Your task to perform on an android device: delete the emails in spam in the gmail app Image 0: 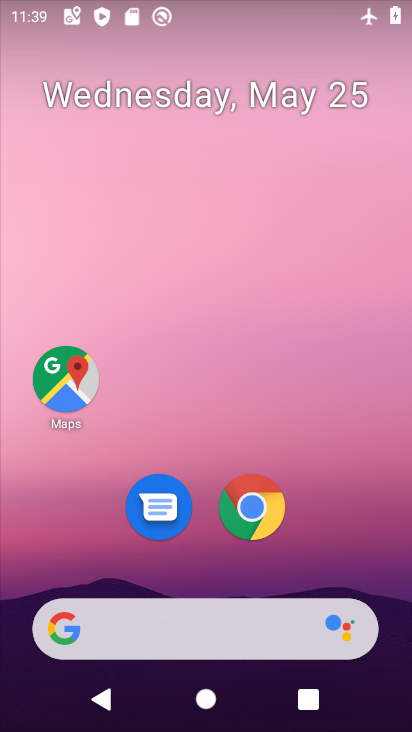
Step 0: drag from (303, 479) to (247, 113)
Your task to perform on an android device: delete the emails in spam in the gmail app Image 1: 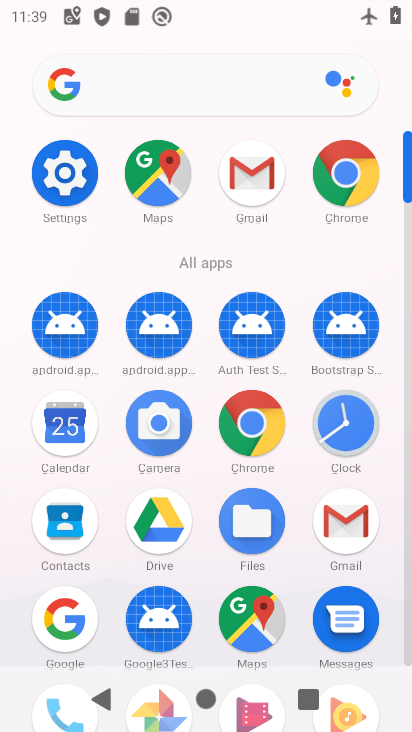
Step 1: click (247, 175)
Your task to perform on an android device: delete the emails in spam in the gmail app Image 2: 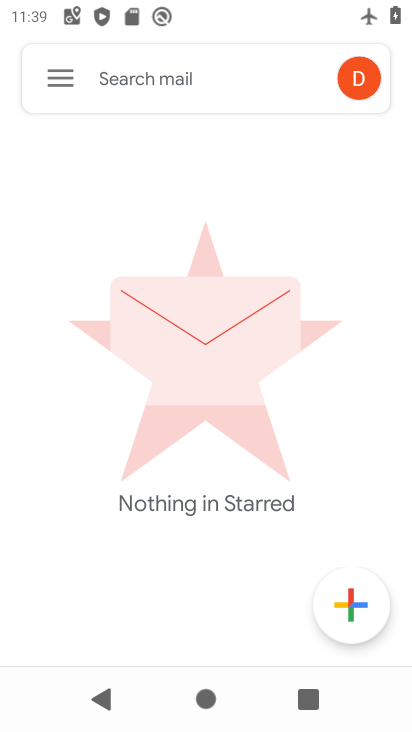
Step 2: click (65, 76)
Your task to perform on an android device: delete the emails in spam in the gmail app Image 3: 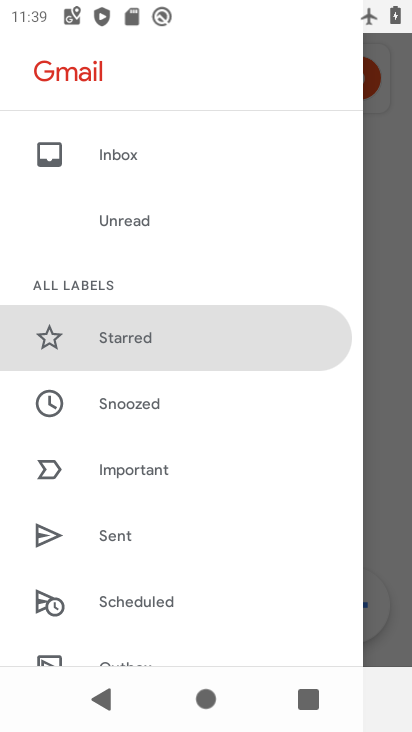
Step 3: drag from (122, 427) to (175, 317)
Your task to perform on an android device: delete the emails in spam in the gmail app Image 4: 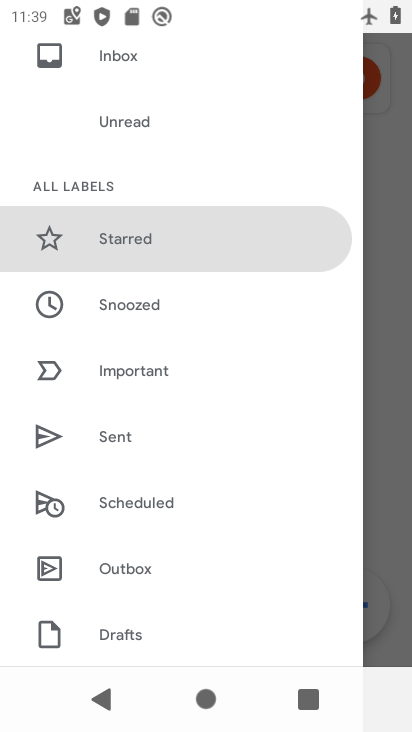
Step 4: drag from (126, 344) to (211, 249)
Your task to perform on an android device: delete the emails in spam in the gmail app Image 5: 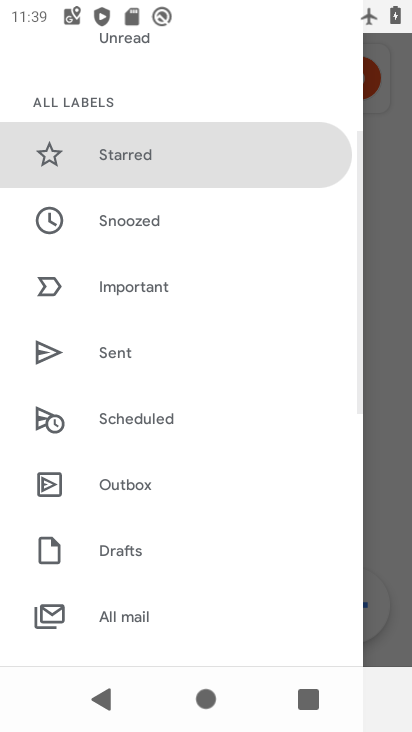
Step 5: drag from (114, 390) to (208, 289)
Your task to perform on an android device: delete the emails in spam in the gmail app Image 6: 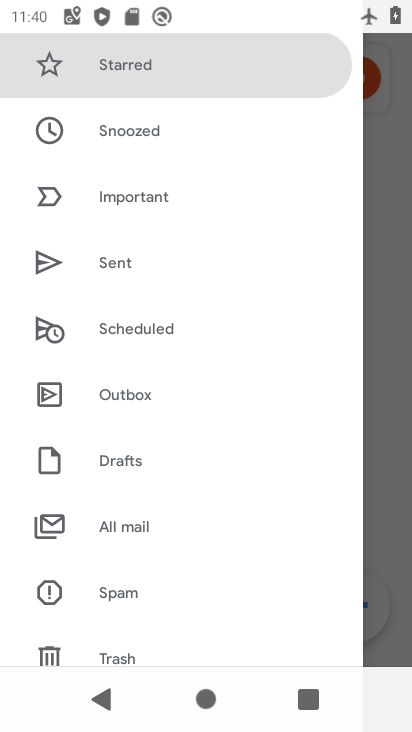
Step 6: click (188, 342)
Your task to perform on an android device: delete the emails in spam in the gmail app Image 7: 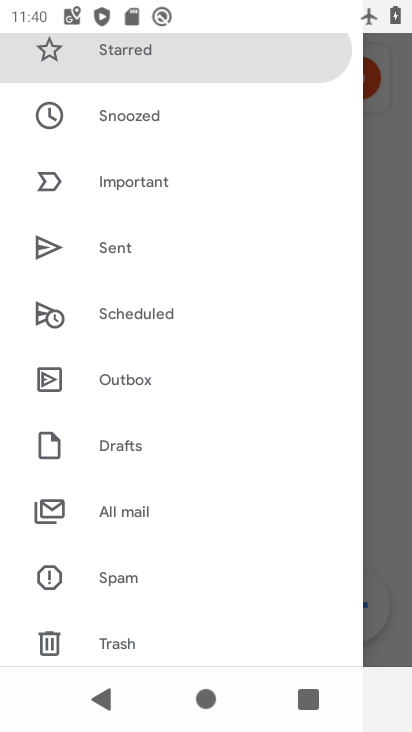
Step 7: drag from (115, 423) to (192, 324)
Your task to perform on an android device: delete the emails in spam in the gmail app Image 8: 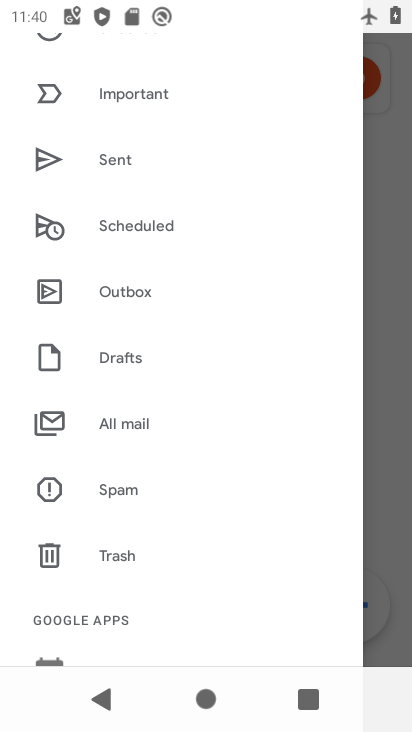
Step 8: drag from (113, 398) to (161, 279)
Your task to perform on an android device: delete the emails in spam in the gmail app Image 9: 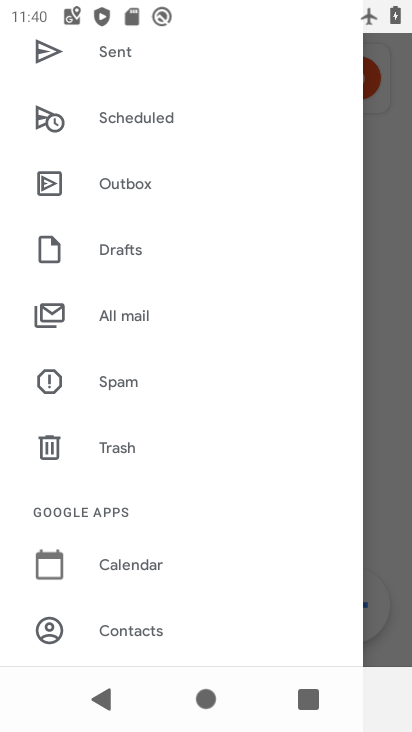
Step 9: drag from (106, 417) to (156, 319)
Your task to perform on an android device: delete the emails in spam in the gmail app Image 10: 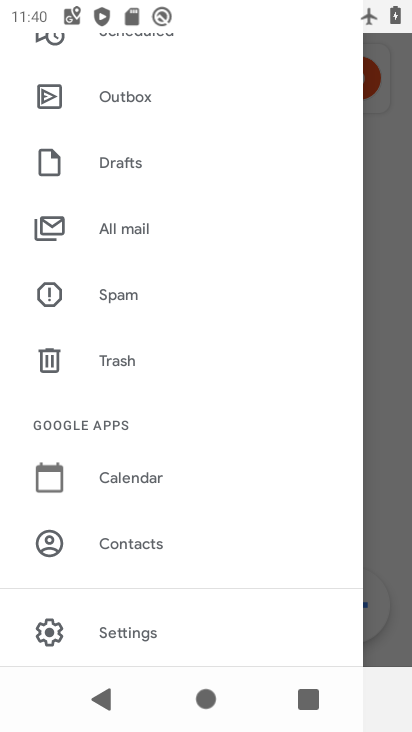
Step 10: drag from (104, 451) to (189, 345)
Your task to perform on an android device: delete the emails in spam in the gmail app Image 11: 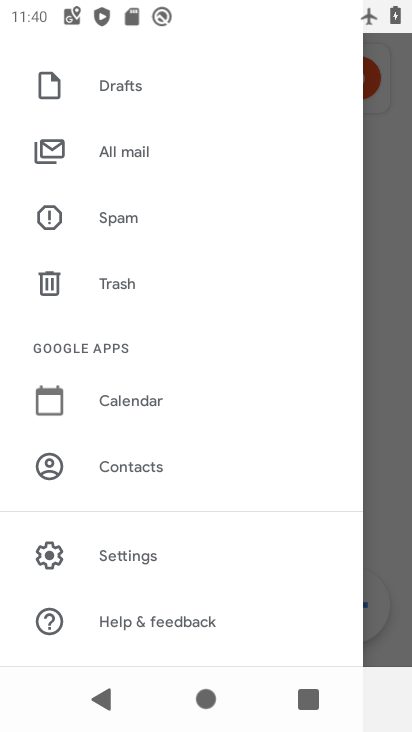
Step 11: click (135, 225)
Your task to perform on an android device: delete the emails in spam in the gmail app Image 12: 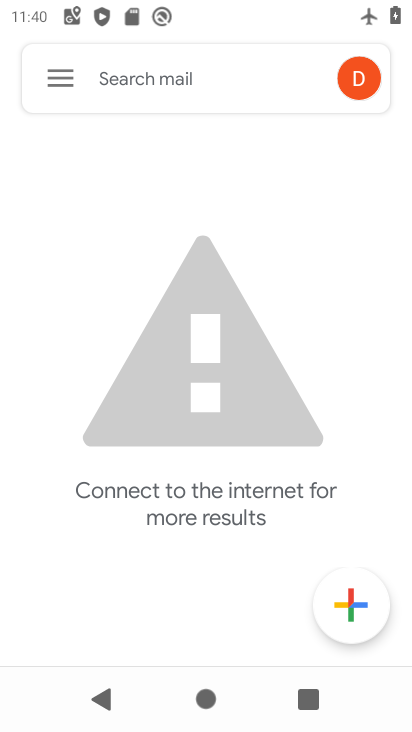
Step 12: task complete